Your task to perform on an android device: Go to network settings Image 0: 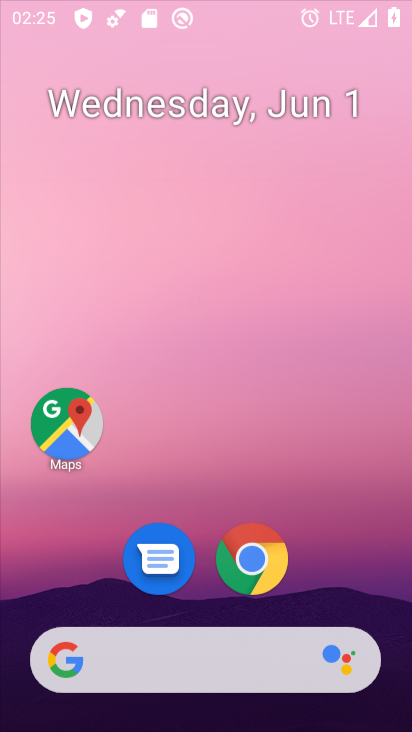
Step 0: press home button
Your task to perform on an android device: Go to network settings Image 1: 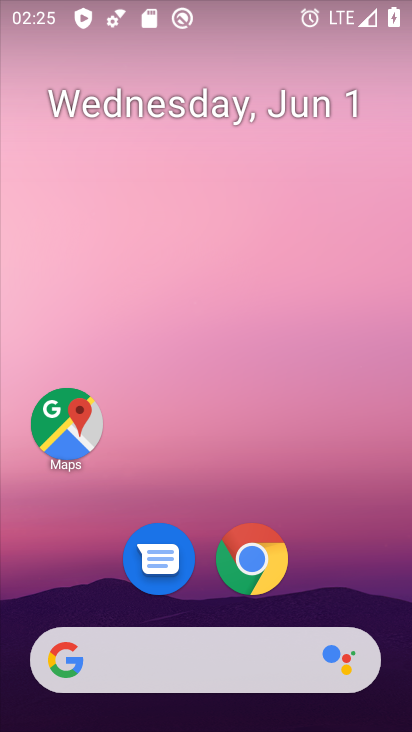
Step 1: drag from (356, 558) to (335, 85)
Your task to perform on an android device: Go to network settings Image 2: 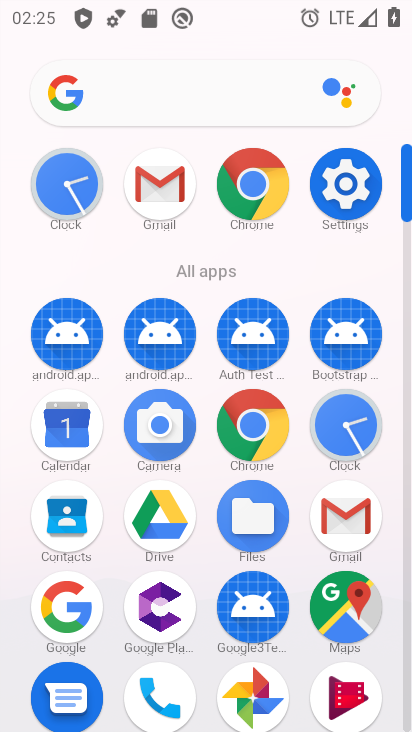
Step 2: click (341, 180)
Your task to perform on an android device: Go to network settings Image 3: 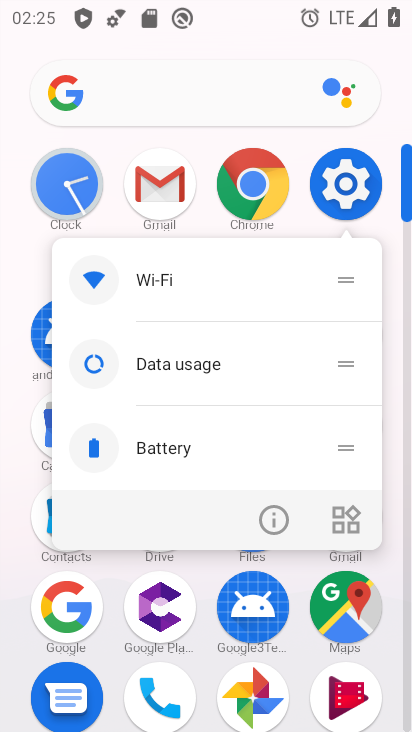
Step 3: click (342, 178)
Your task to perform on an android device: Go to network settings Image 4: 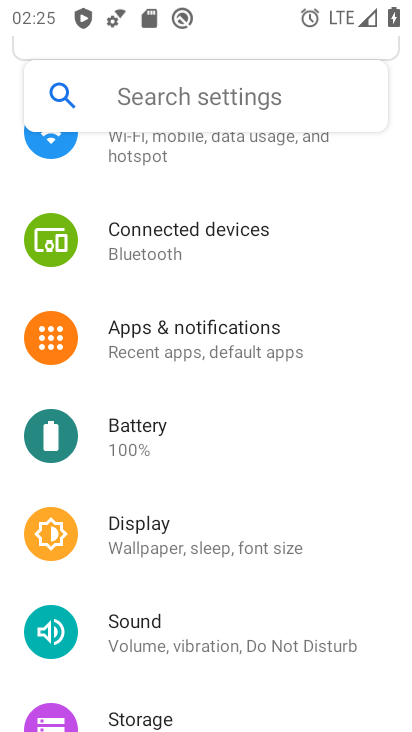
Step 4: drag from (313, 203) to (318, 410)
Your task to perform on an android device: Go to network settings Image 5: 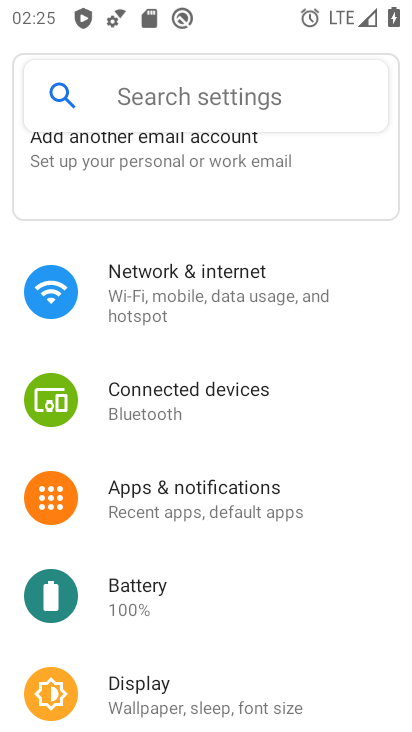
Step 5: click (186, 278)
Your task to perform on an android device: Go to network settings Image 6: 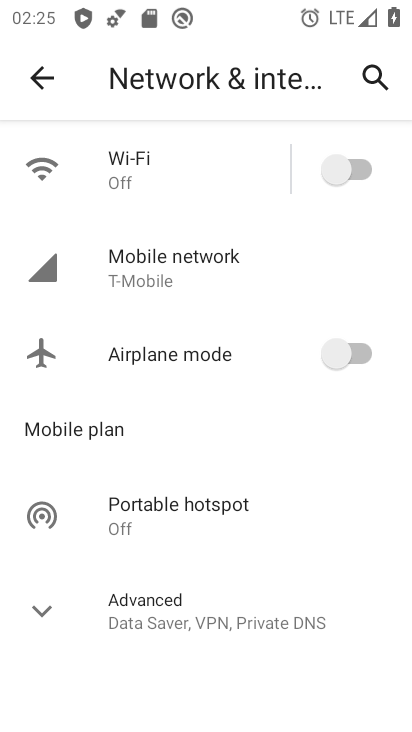
Step 6: task complete